Your task to perform on an android device: manage bookmarks in the chrome app Image 0: 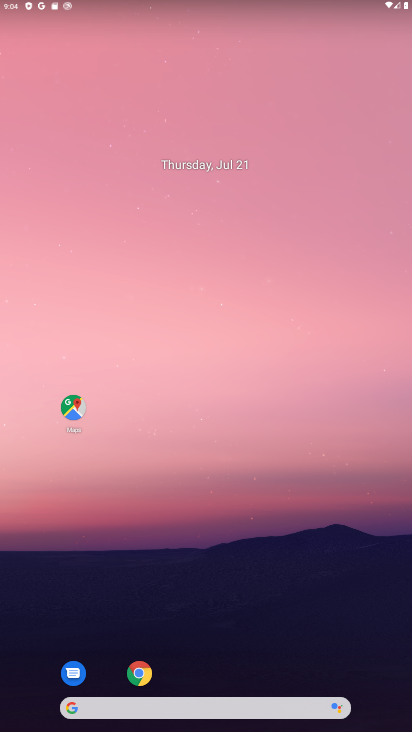
Step 0: press home button
Your task to perform on an android device: manage bookmarks in the chrome app Image 1: 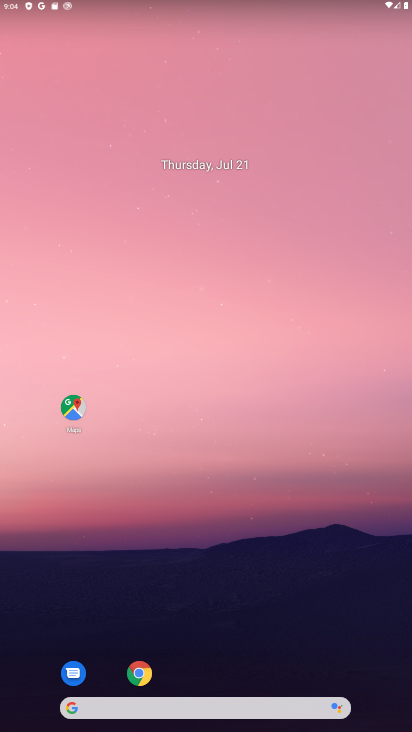
Step 1: click (138, 670)
Your task to perform on an android device: manage bookmarks in the chrome app Image 2: 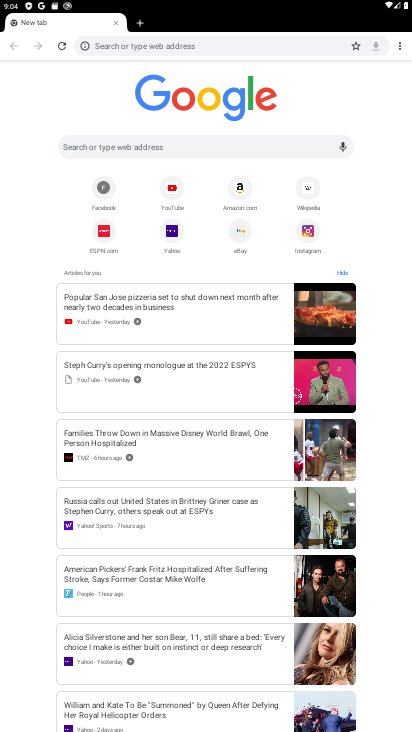
Step 2: click (397, 45)
Your task to perform on an android device: manage bookmarks in the chrome app Image 3: 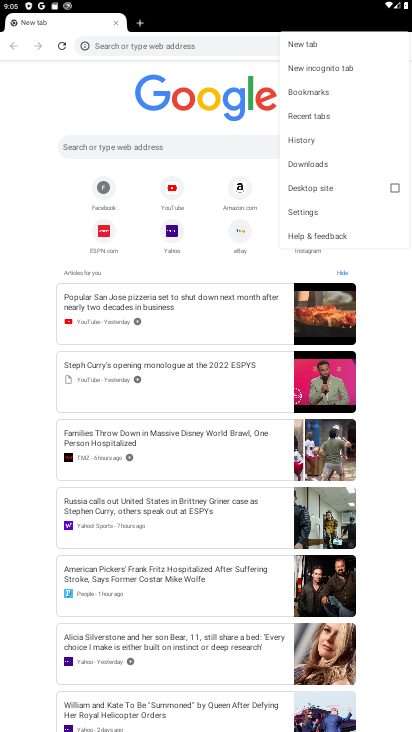
Step 3: click (334, 92)
Your task to perform on an android device: manage bookmarks in the chrome app Image 4: 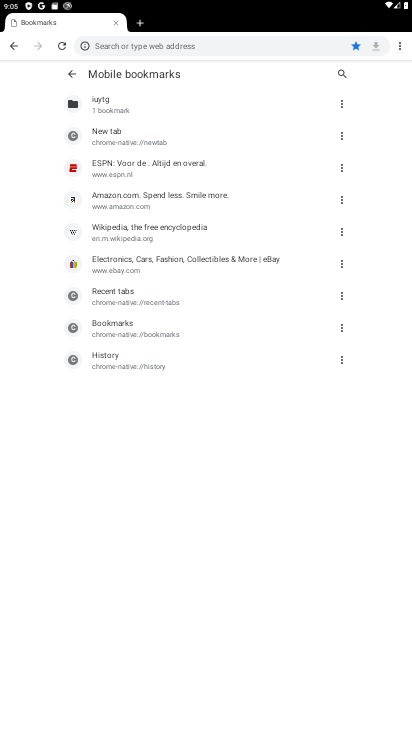
Step 4: task complete